Your task to perform on an android device: move a message to another label in the gmail app Image 0: 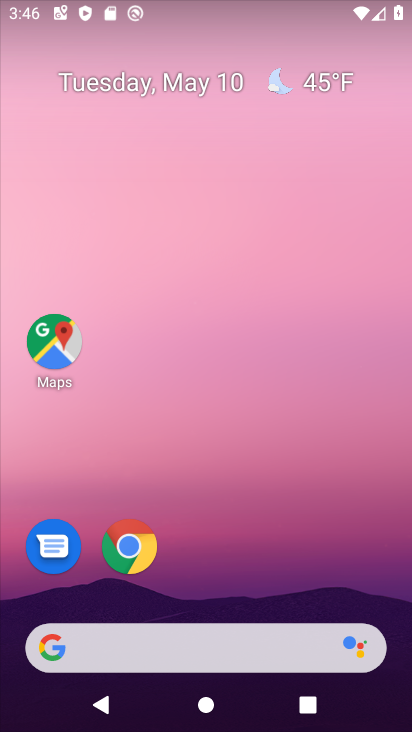
Step 0: drag from (234, 515) to (308, 36)
Your task to perform on an android device: move a message to another label in the gmail app Image 1: 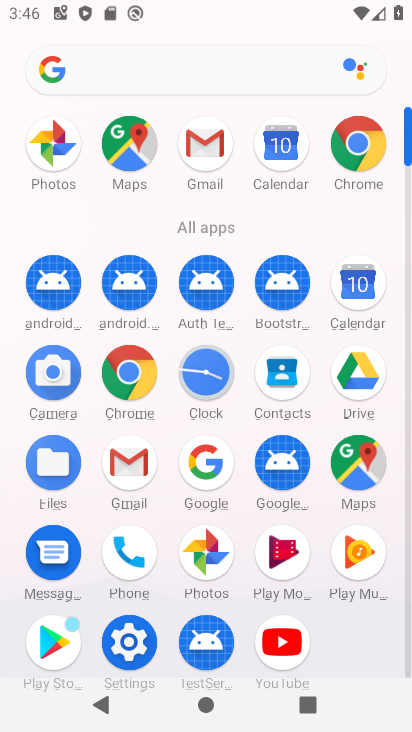
Step 1: click (214, 156)
Your task to perform on an android device: move a message to another label in the gmail app Image 2: 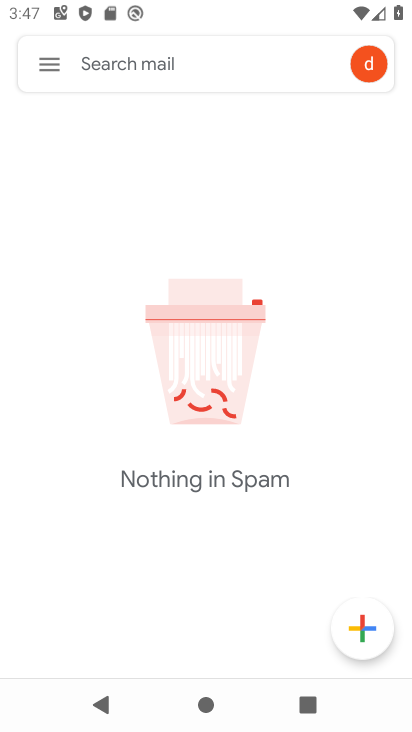
Step 2: click (43, 59)
Your task to perform on an android device: move a message to another label in the gmail app Image 3: 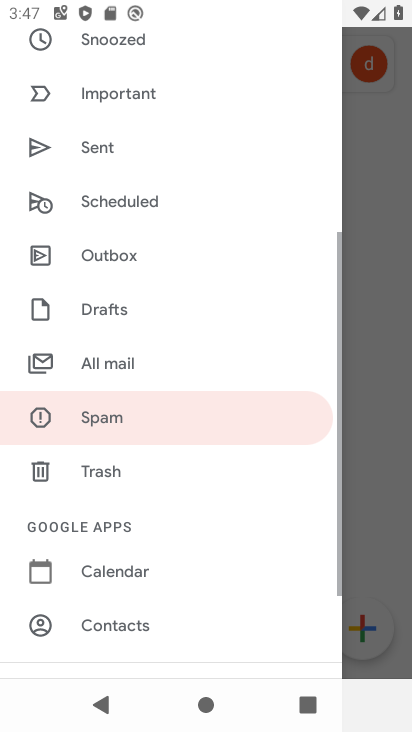
Step 3: click (99, 363)
Your task to perform on an android device: move a message to another label in the gmail app Image 4: 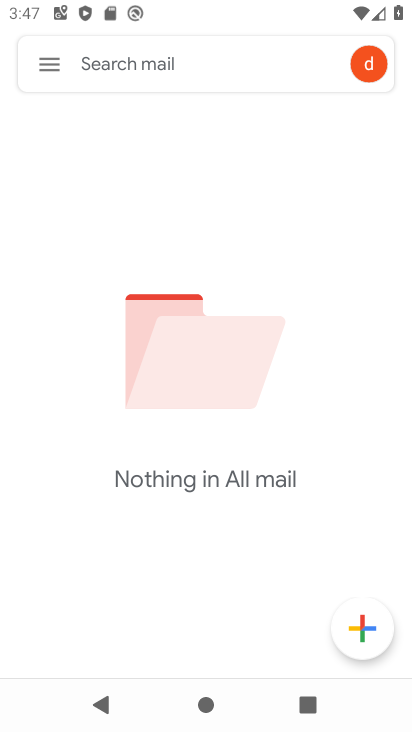
Step 4: task complete